Your task to perform on an android device: change the clock display to analog Image 0: 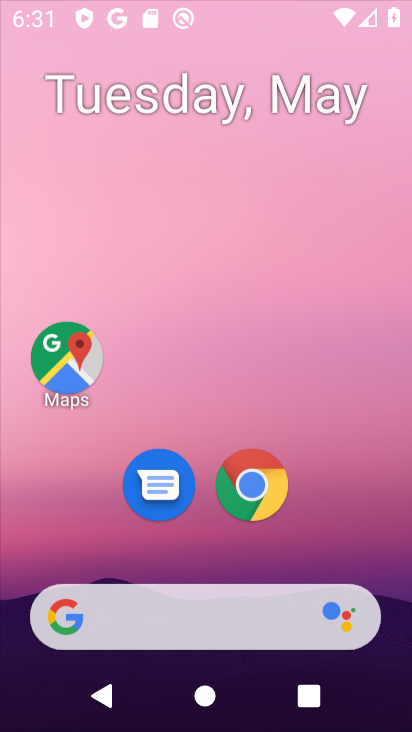
Step 0: press home button
Your task to perform on an android device: change the clock display to analog Image 1: 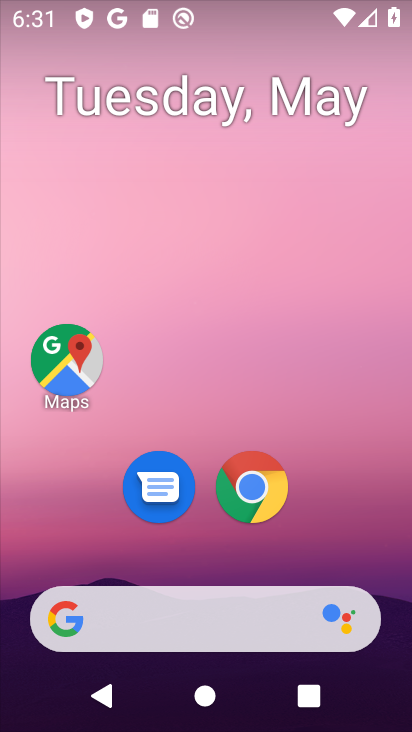
Step 1: drag from (343, 514) to (224, 102)
Your task to perform on an android device: change the clock display to analog Image 2: 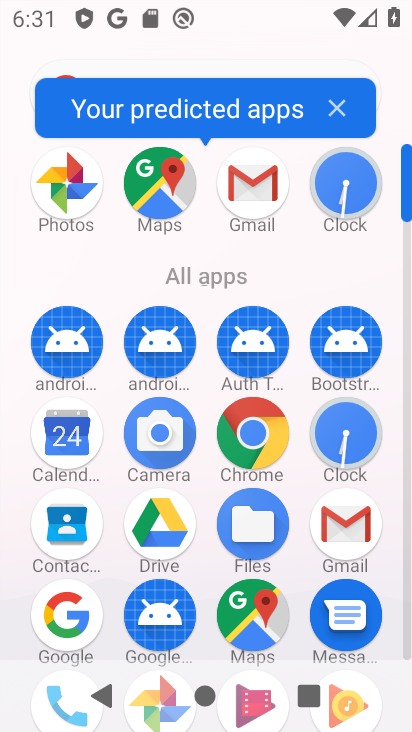
Step 2: click (335, 174)
Your task to perform on an android device: change the clock display to analog Image 3: 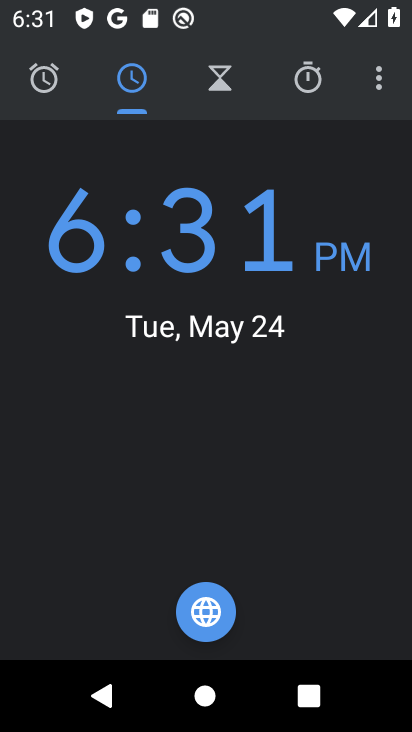
Step 3: click (376, 71)
Your task to perform on an android device: change the clock display to analog Image 4: 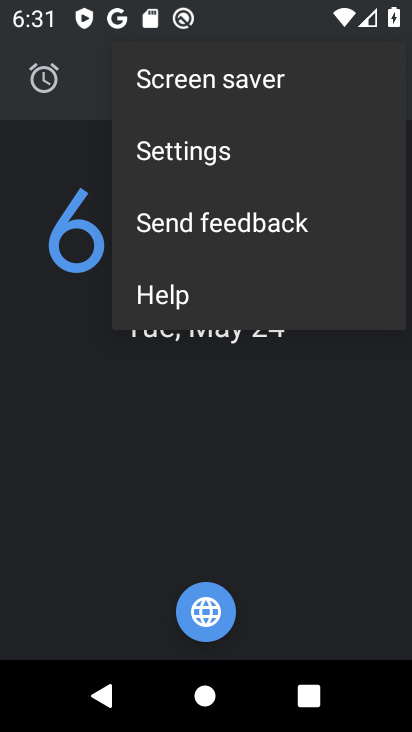
Step 4: click (187, 145)
Your task to perform on an android device: change the clock display to analog Image 5: 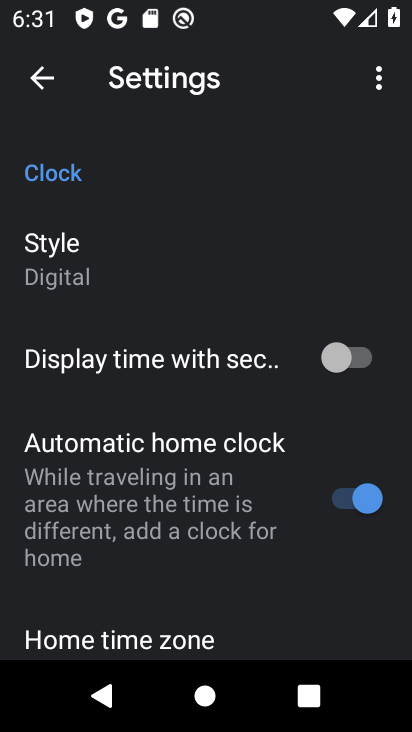
Step 5: click (62, 238)
Your task to perform on an android device: change the clock display to analog Image 6: 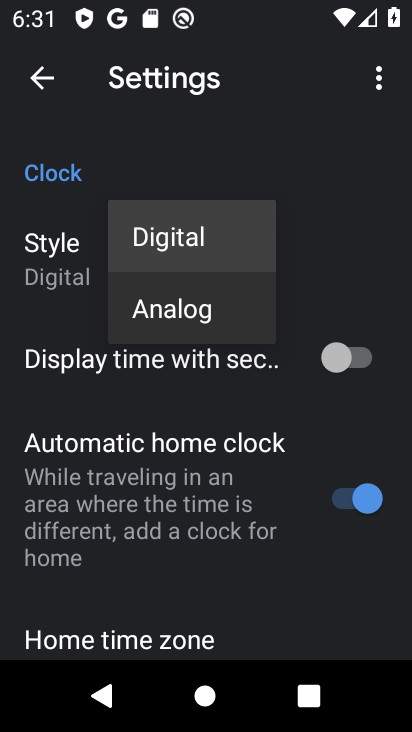
Step 6: click (149, 305)
Your task to perform on an android device: change the clock display to analog Image 7: 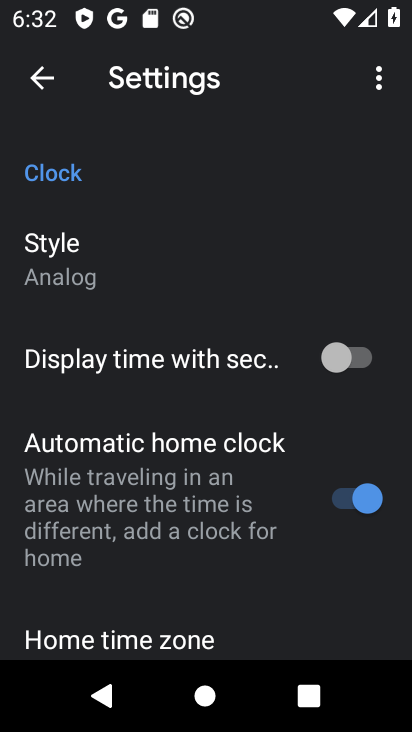
Step 7: task complete